Your task to perform on an android device: open chrome privacy settings Image 0: 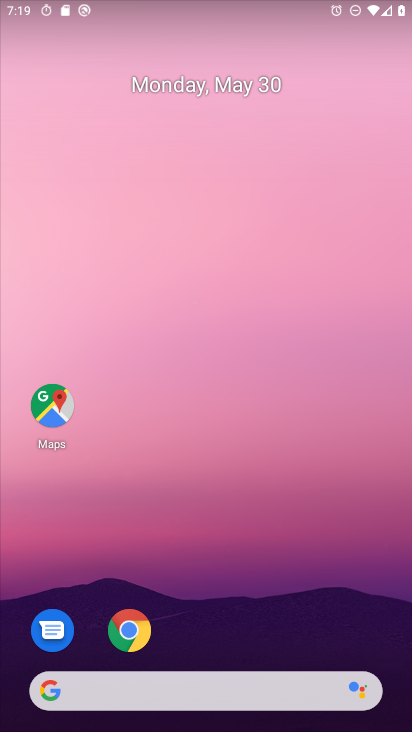
Step 0: drag from (339, 619) to (262, 2)
Your task to perform on an android device: open chrome privacy settings Image 1: 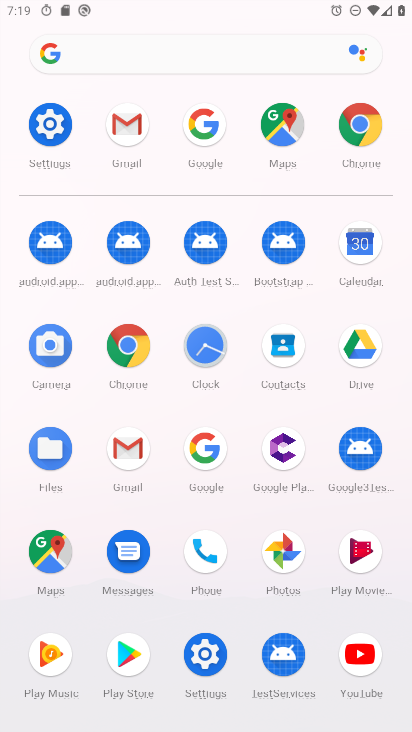
Step 1: click (359, 148)
Your task to perform on an android device: open chrome privacy settings Image 2: 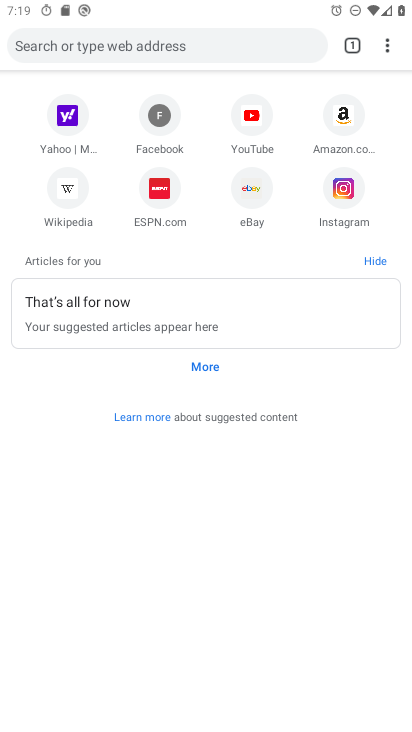
Step 2: click (383, 33)
Your task to perform on an android device: open chrome privacy settings Image 3: 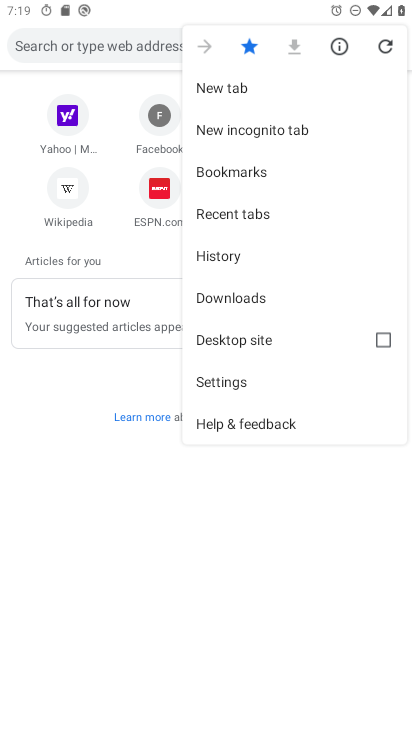
Step 3: click (236, 378)
Your task to perform on an android device: open chrome privacy settings Image 4: 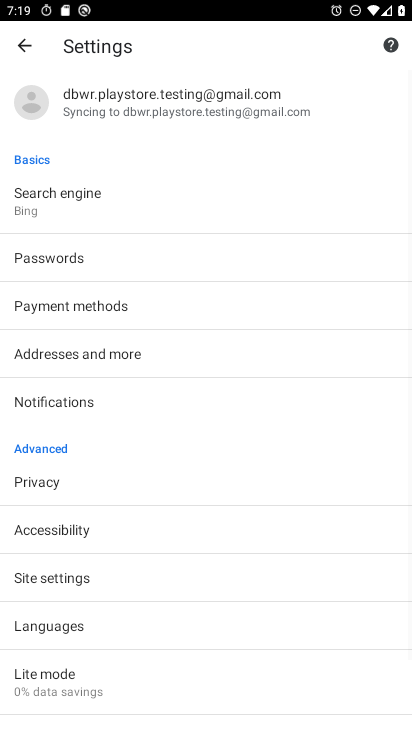
Step 4: click (86, 480)
Your task to perform on an android device: open chrome privacy settings Image 5: 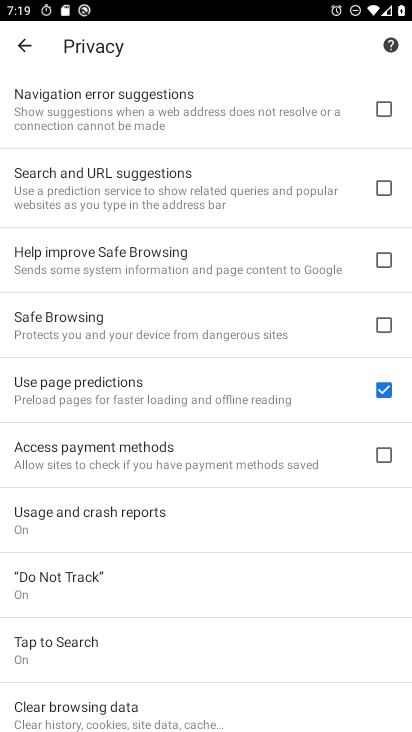
Step 5: task complete